Your task to perform on an android device: When is my next meeting? Image 0: 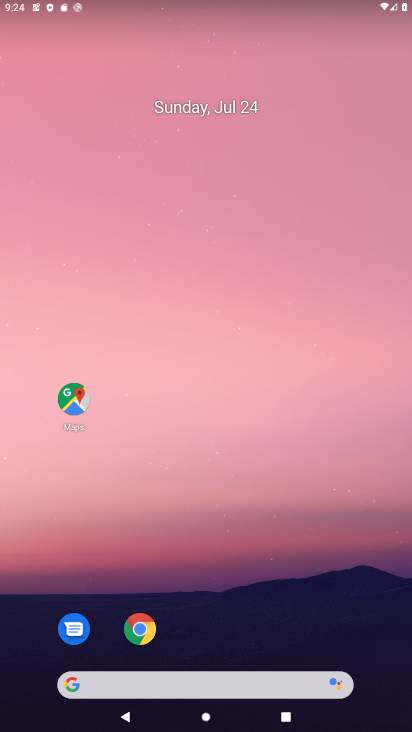
Step 0: drag from (276, 624) to (293, 5)
Your task to perform on an android device: When is my next meeting? Image 1: 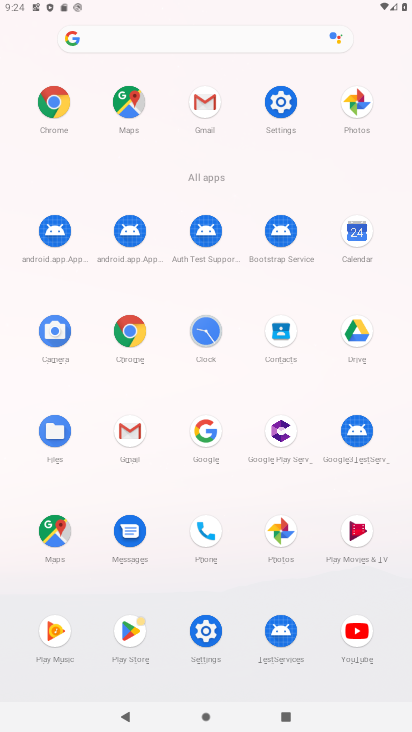
Step 1: click (294, 125)
Your task to perform on an android device: When is my next meeting? Image 2: 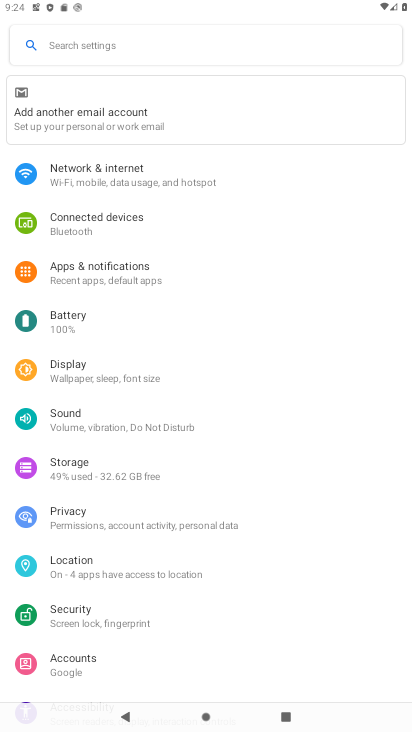
Step 2: task complete